Your task to perform on an android device: See recent photos Image 0: 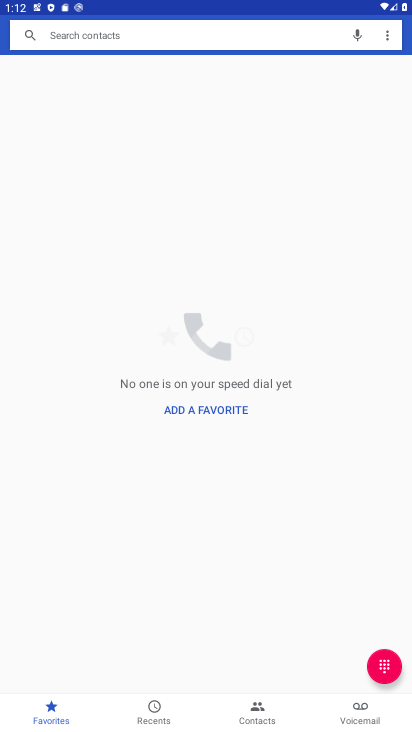
Step 0: press home button
Your task to perform on an android device: See recent photos Image 1: 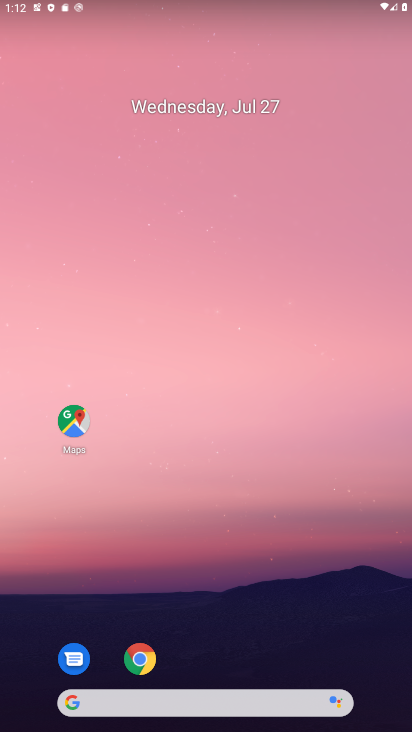
Step 1: drag from (231, 612) to (201, 15)
Your task to perform on an android device: See recent photos Image 2: 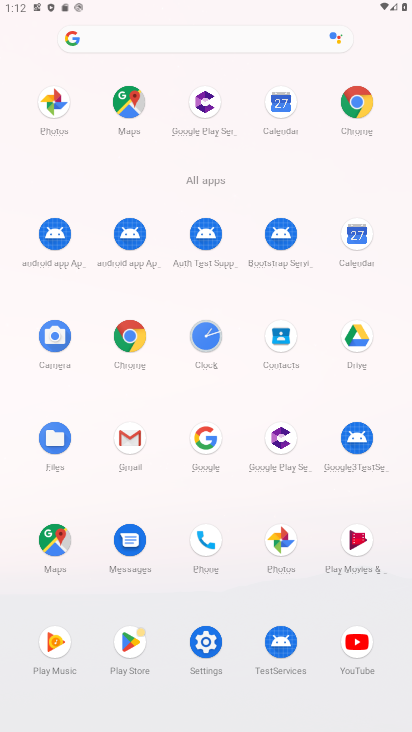
Step 2: click (48, 103)
Your task to perform on an android device: See recent photos Image 3: 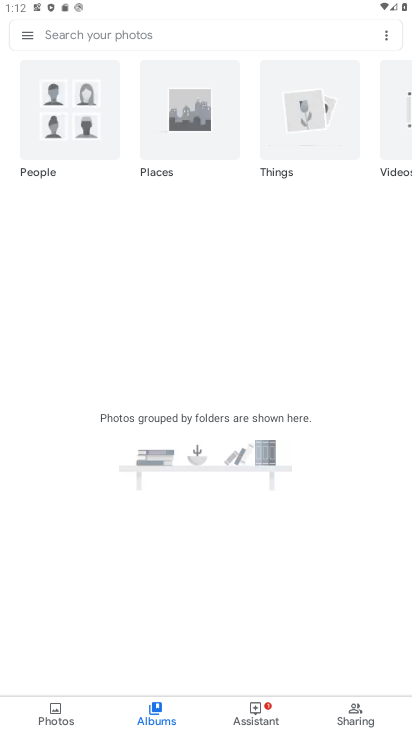
Step 3: click (50, 716)
Your task to perform on an android device: See recent photos Image 4: 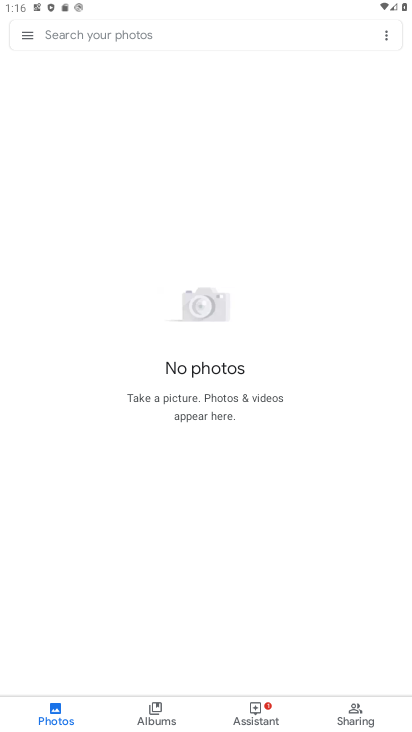
Step 4: task complete